Your task to perform on an android device: snooze an email in the gmail app Image 0: 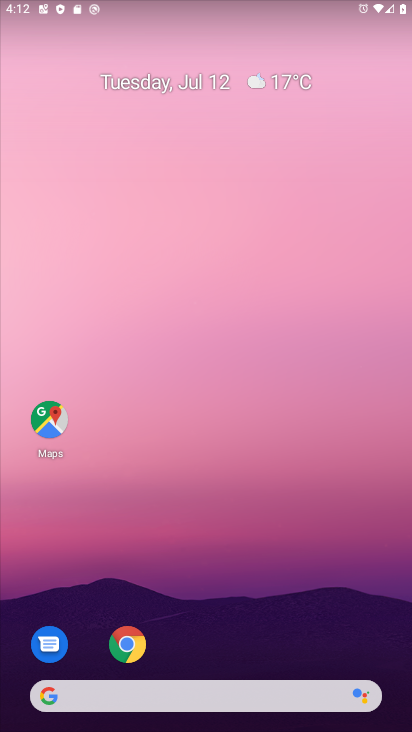
Step 0: drag from (231, 646) to (233, 8)
Your task to perform on an android device: snooze an email in the gmail app Image 1: 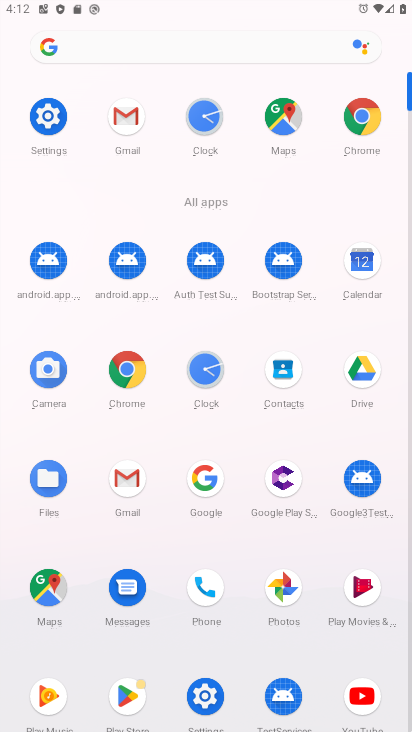
Step 1: click (129, 120)
Your task to perform on an android device: snooze an email in the gmail app Image 2: 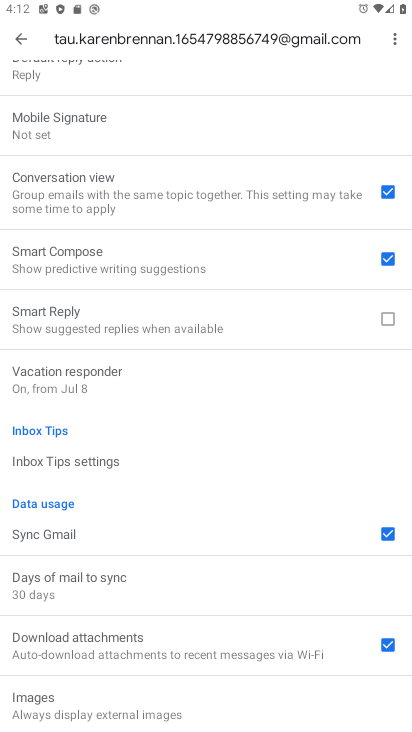
Step 2: click (21, 29)
Your task to perform on an android device: snooze an email in the gmail app Image 3: 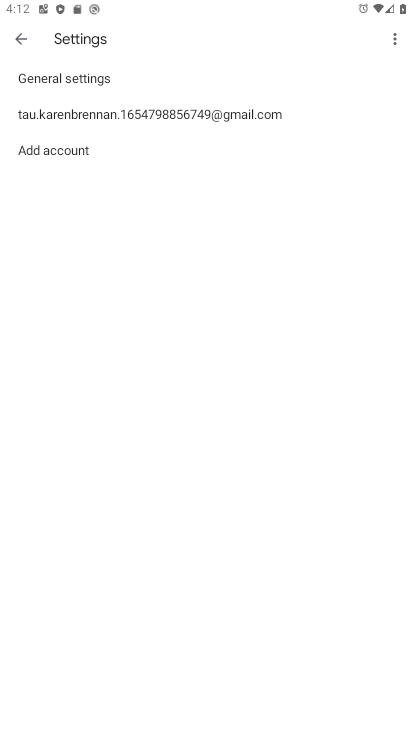
Step 3: click (21, 29)
Your task to perform on an android device: snooze an email in the gmail app Image 4: 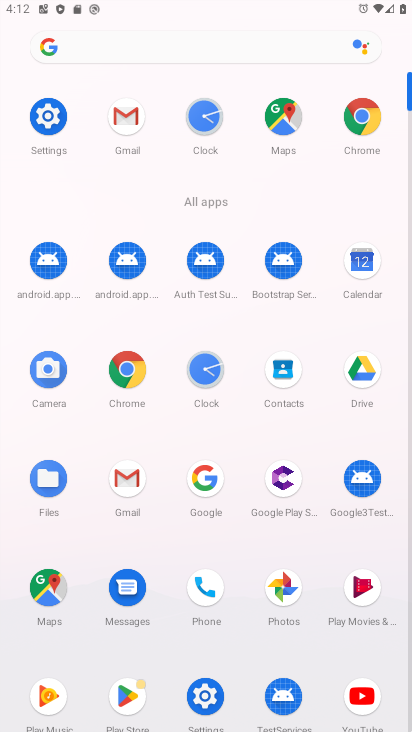
Step 4: click (127, 124)
Your task to perform on an android device: snooze an email in the gmail app Image 5: 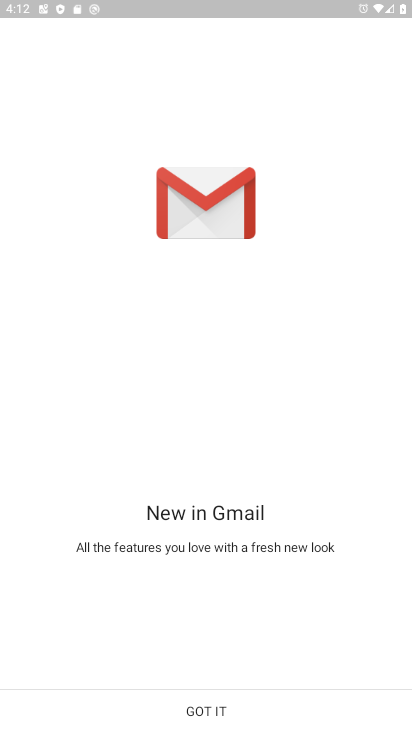
Step 5: click (213, 717)
Your task to perform on an android device: snooze an email in the gmail app Image 6: 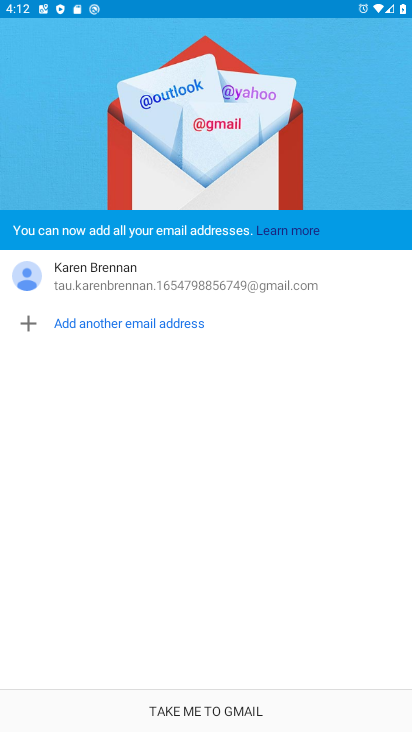
Step 6: click (213, 717)
Your task to perform on an android device: snooze an email in the gmail app Image 7: 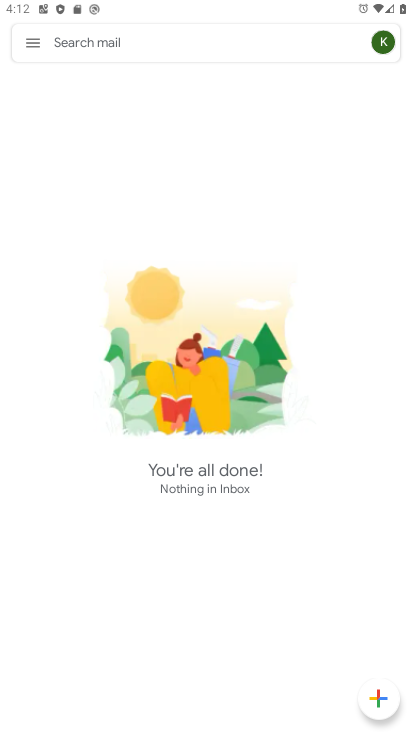
Step 7: task complete